Your task to perform on an android device: turn on showing notifications on the lock screen Image 0: 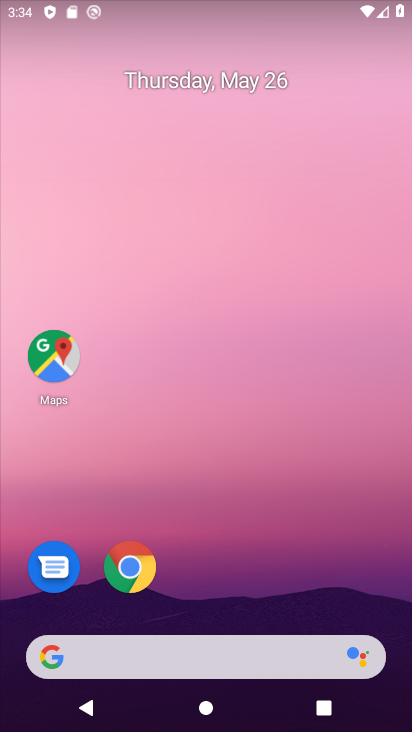
Step 0: drag from (215, 555) to (299, 183)
Your task to perform on an android device: turn on showing notifications on the lock screen Image 1: 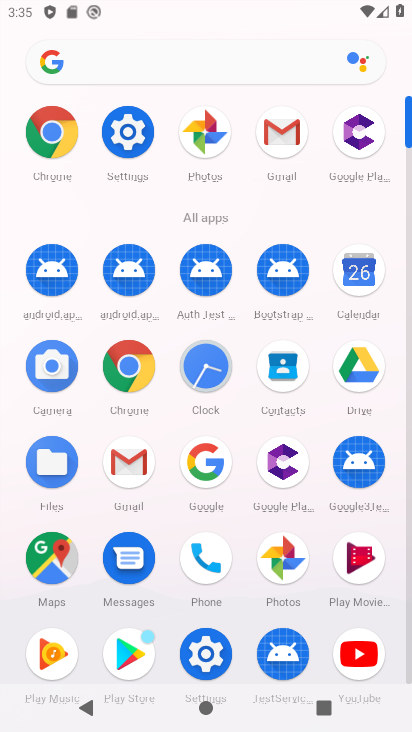
Step 1: click (205, 637)
Your task to perform on an android device: turn on showing notifications on the lock screen Image 2: 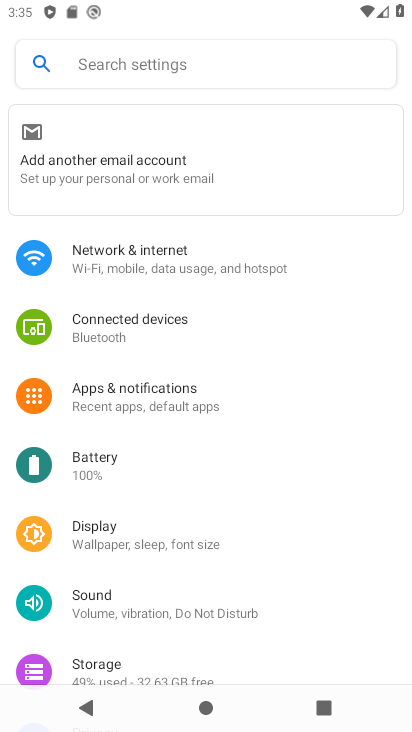
Step 2: drag from (243, 594) to (312, 385)
Your task to perform on an android device: turn on showing notifications on the lock screen Image 3: 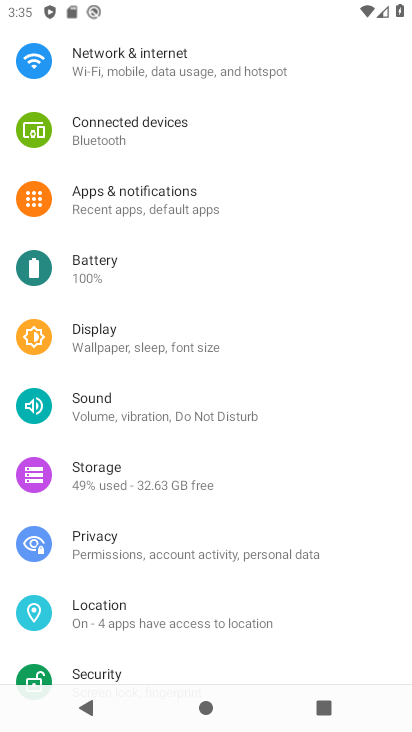
Step 3: click (198, 213)
Your task to perform on an android device: turn on showing notifications on the lock screen Image 4: 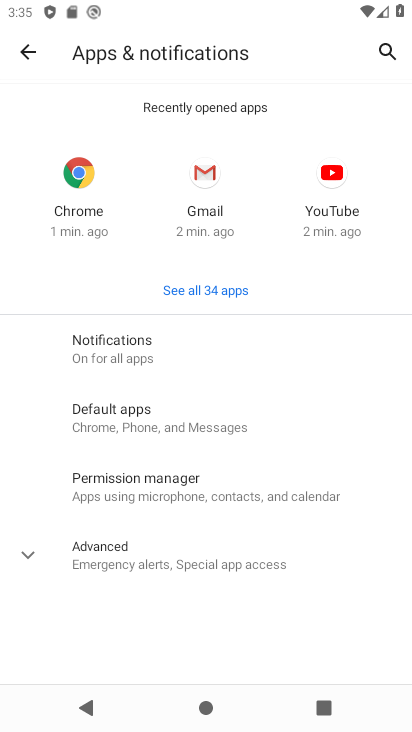
Step 4: click (227, 361)
Your task to perform on an android device: turn on showing notifications on the lock screen Image 5: 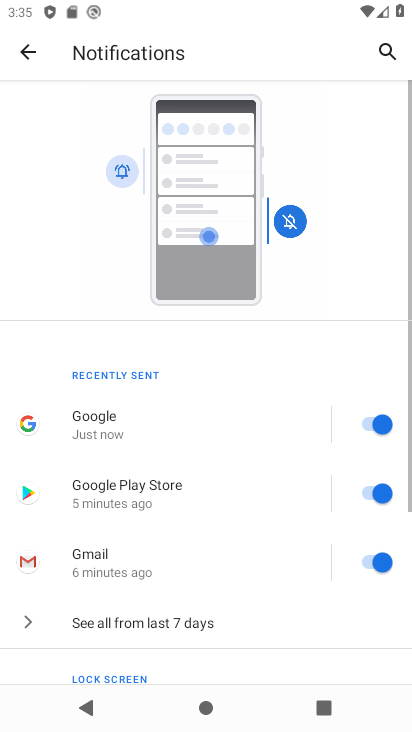
Step 5: drag from (216, 641) to (341, 259)
Your task to perform on an android device: turn on showing notifications on the lock screen Image 6: 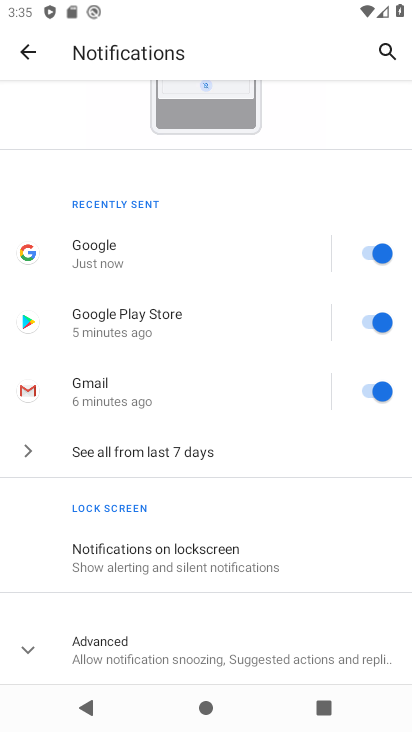
Step 6: click (222, 562)
Your task to perform on an android device: turn on showing notifications on the lock screen Image 7: 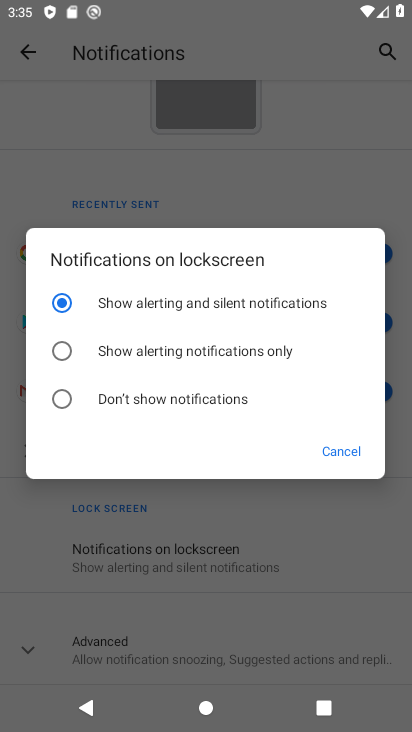
Step 7: task complete